Your task to perform on an android device: create a new album in the google photos Image 0: 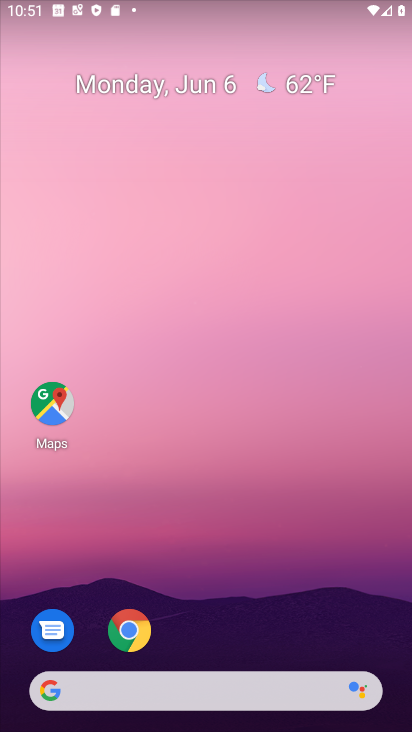
Step 0: drag from (313, 583) to (260, 191)
Your task to perform on an android device: create a new album in the google photos Image 1: 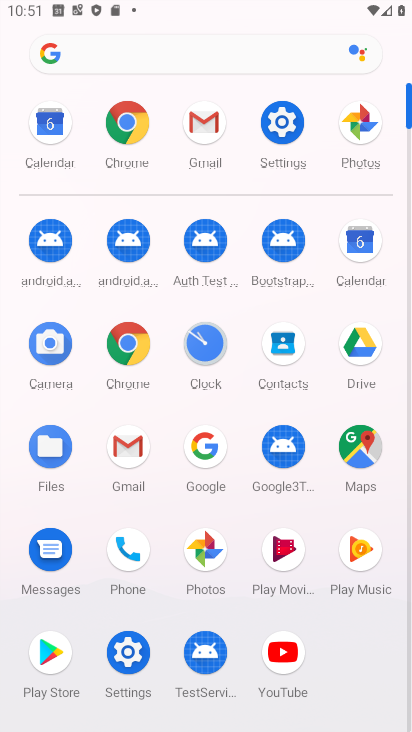
Step 1: click (188, 566)
Your task to perform on an android device: create a new album in the google photos Image 2: 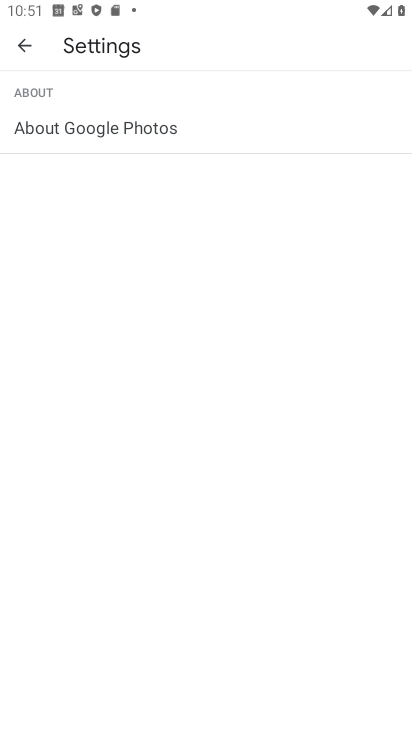
Step 2: click (28, 43)
Your task to perform on an android device: create a new album in the google photos Image 3: 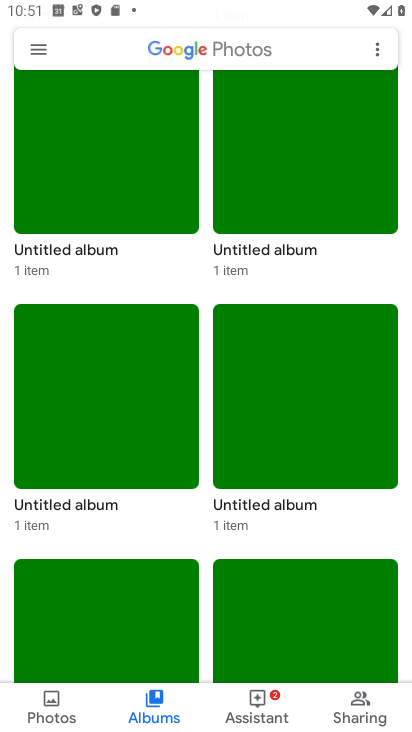
Step 3: task complete